Your task to perform on an android device: Open Chrome and go to the settings page Image 0: 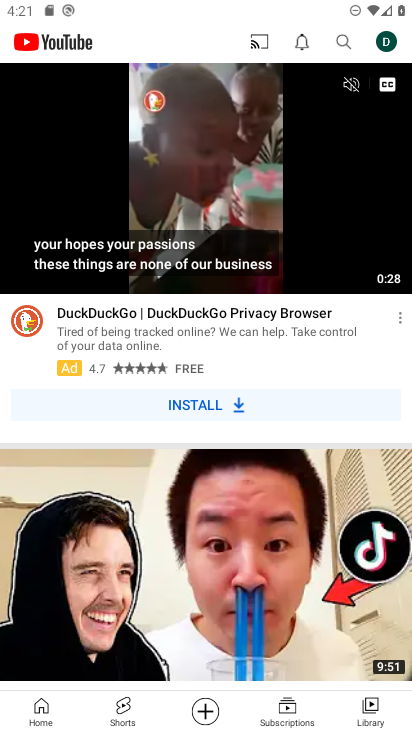
Step 0: press back button
Your task to perform on an android device: Open Chrome and go to the settings page Image 1: 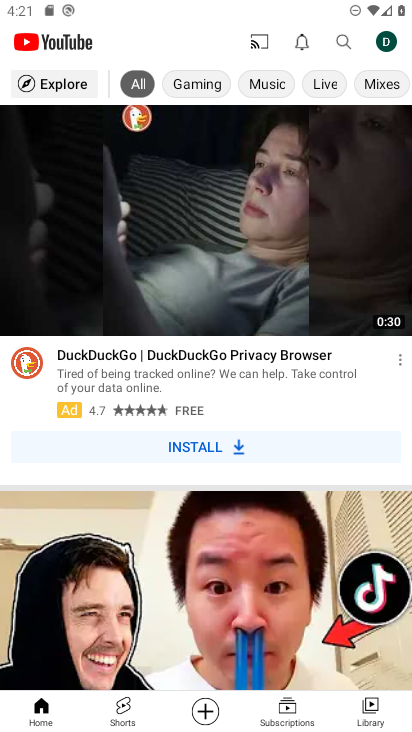
Step 1: press back button
Your task to perform on an android device: Open Chrome and go to the settings page Image 2: 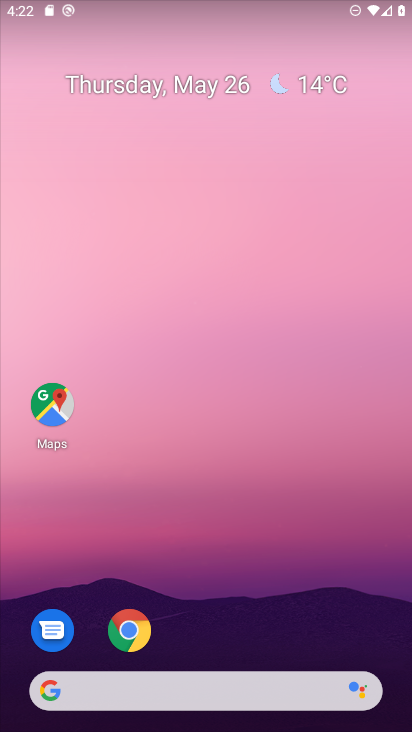
Step 2: click (129, 631)
Your task to perform on an android device: Open Chrome and go to the settings page Image 3: 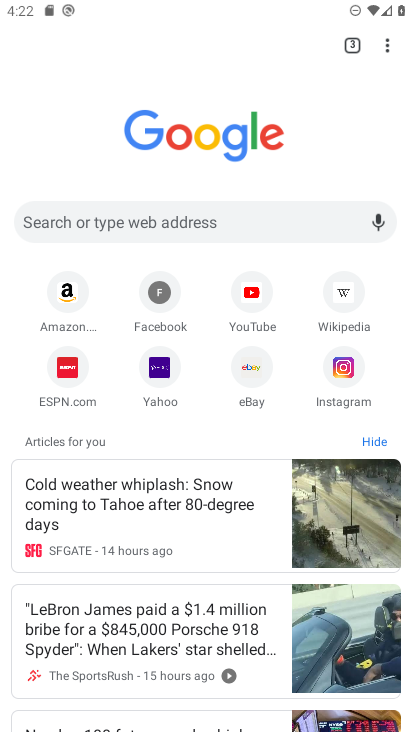
Step 3: click (388, 44)
Your task to perform on an android device: Open Chrome and go to the settings page Image 4: 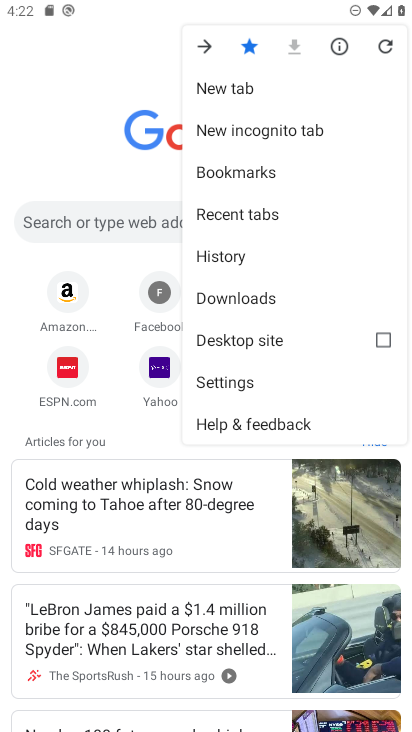
Step 4: click (234, 378)
Your task to perform on an android device: Open Chrome and go to the settings page Image 5: 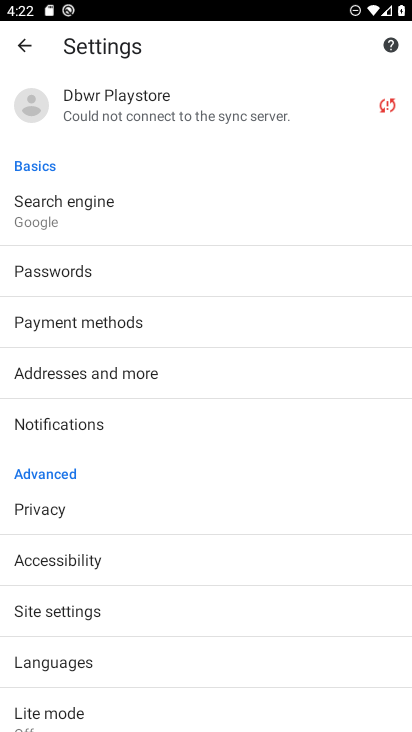
Step 5: task complete